Your task to perform on an android device: open the mobile data screen to see how much data has been used Image 0: 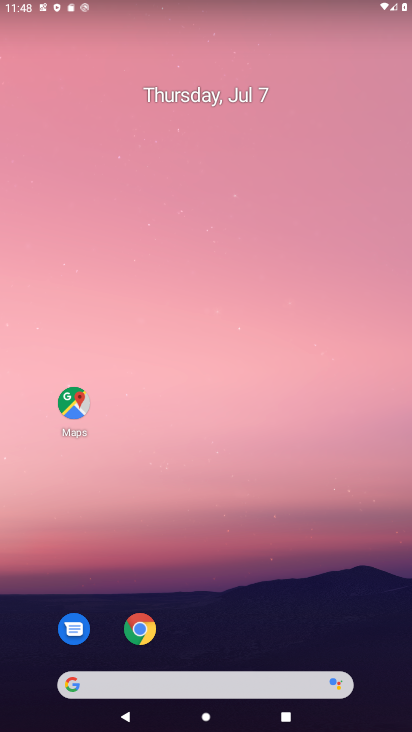
Step 0: drag from (379, 635) to (326, 123)
Your task to perform on an android device: open the mobile data screen to see how much data has been used Image 1: 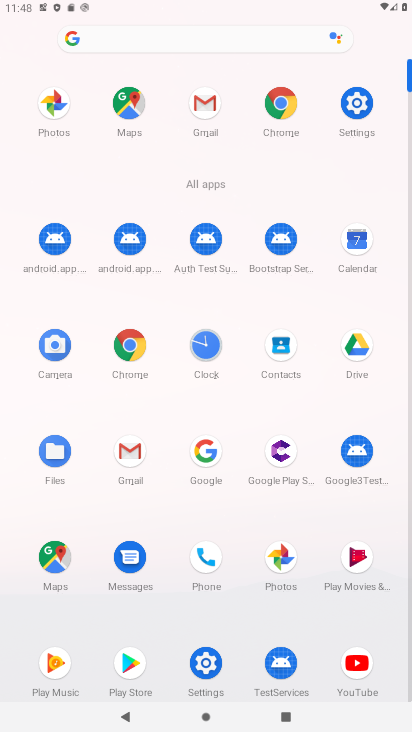
Step 1: click (206, 663)
Your task to perform on an android device: open the mobile data screen to see how much data has been used Image 2: 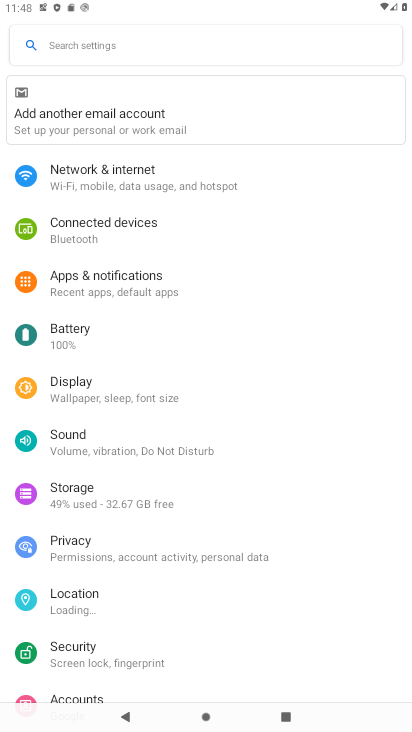
Step 2: click (91, 168)
Your task to perform on an android device: open the mobile data screen to see how much data has been used Image 3: 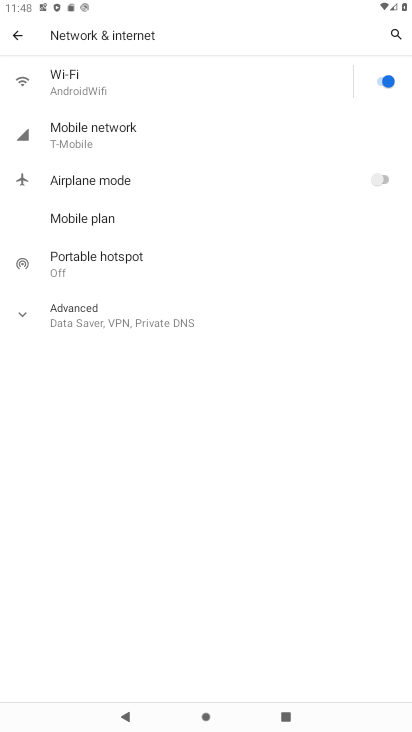
Step 3: click (85, 128)
Your task to perform on an android device: open the mobile data screen to see how much data has been used Image 4: 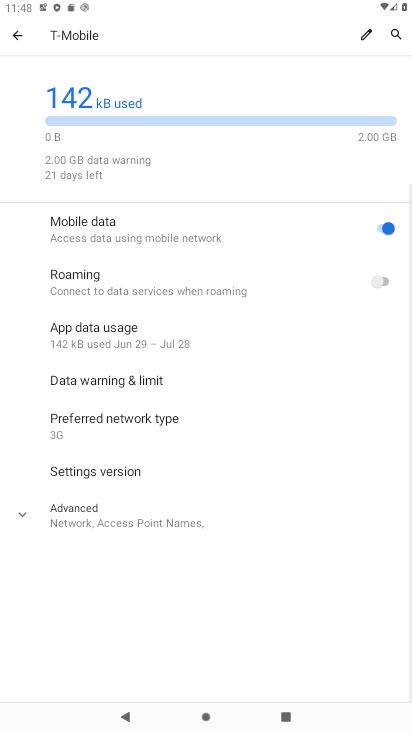
Step 4: task complete